Your task to perform on an android device: Go to calendar. Show me events next week Image 0: 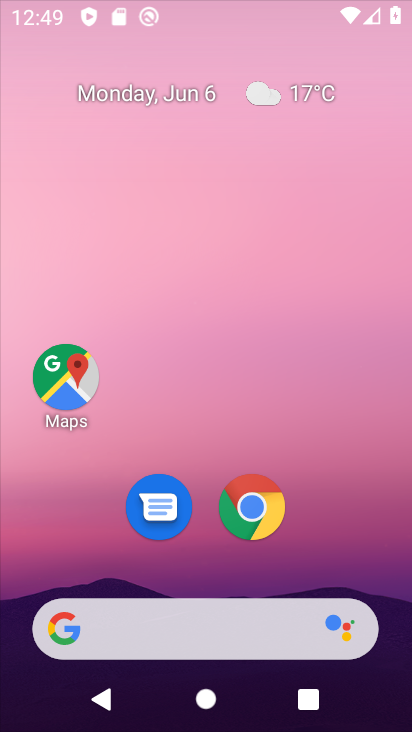
Step 0: drag from (193, 601) to (247, 137)
Your task to perform on an android device: Go to calendar. Show me events next week Image 1: 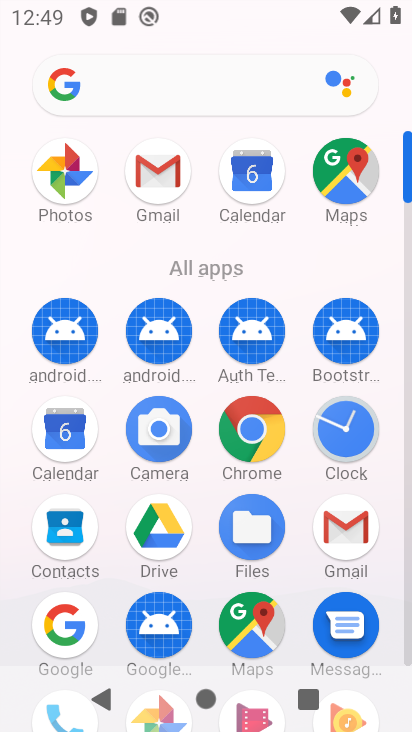
Step 1: click (84, 434)
Your task to perform on an android device: Go to calendar. Show me events next week Image 2: 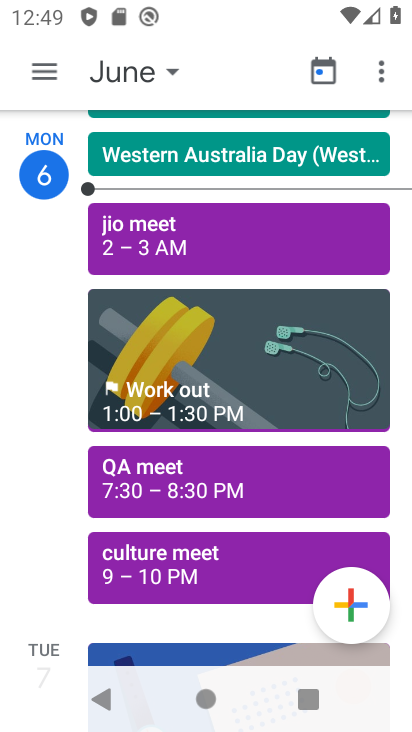
Step 2: task complete